Your task to perform on an android device: turn off priority inbox in the gmail app Image 0: 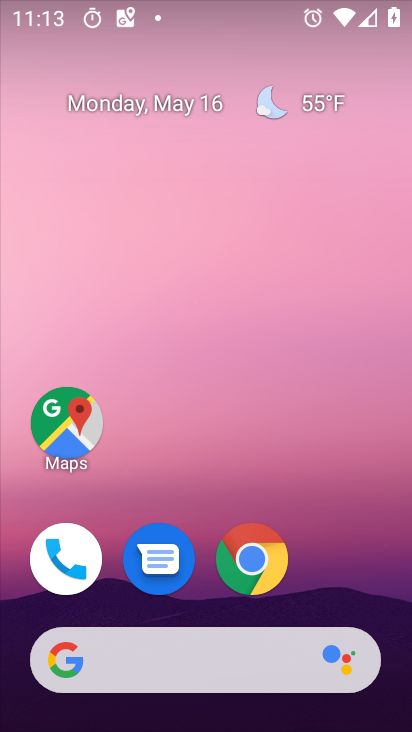
Step 0: drag from (335, 593) to (292, 132)
Your task to perform on an android device: turn off priority inbox in the gmail app Image 1: 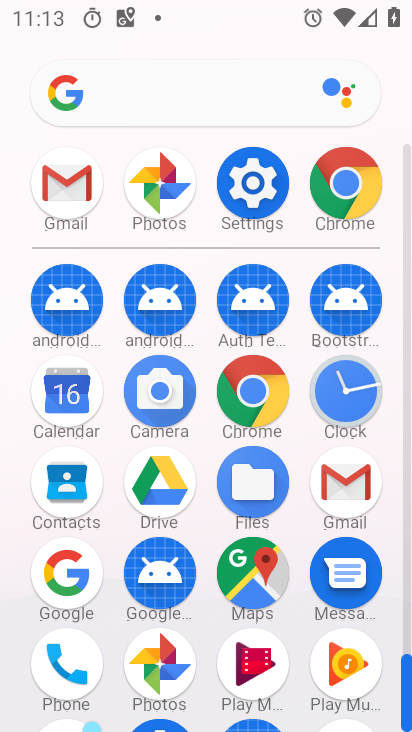
Step 1: click (88, 197)
Your task to perform on an android device: turn off priority inbox in the gmail app Image 2: 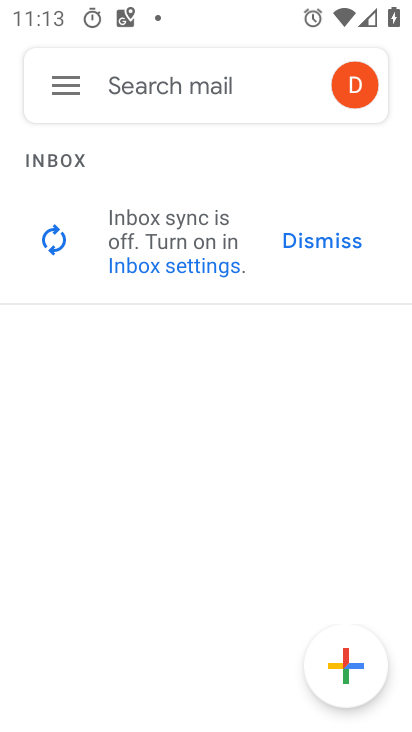
Step 2: click (66, 80)
Your task to perform on an android device: turn off priority inbox in the gmail app Image 3: 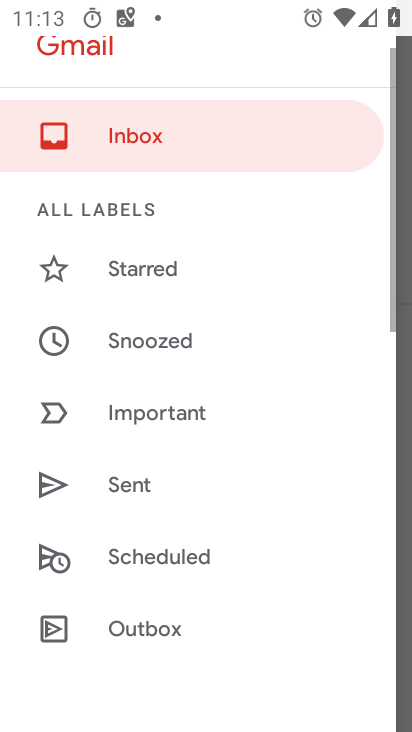
Step 3: drag from (228, 641) to (285, 216)
Your task to perform on an android device: turn off priority inbox in the gmail app Image 4: 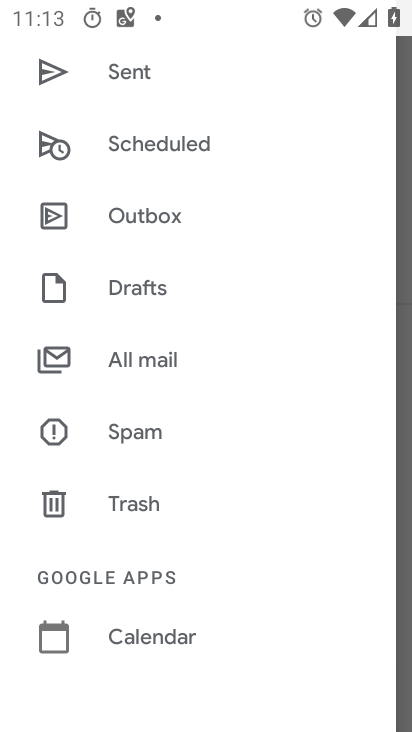
Step 4: drag from (167, 614) to (223, 194)
Your task to perform on an android device: turn off priority inbox in the gmail app Image 5: 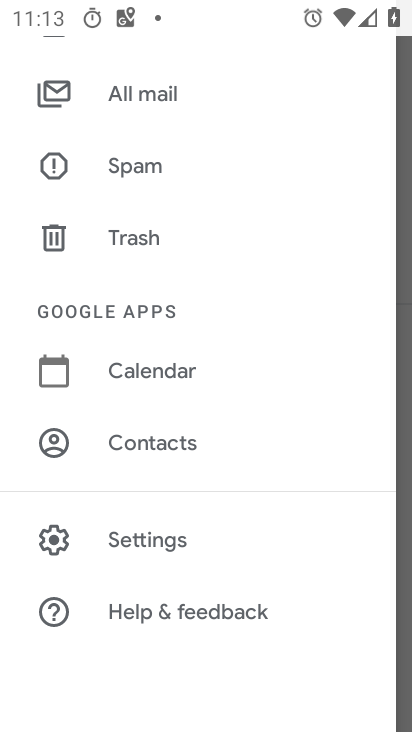
Step 5: click (143, 550)
Your task to perform on an android device: turn off priority inbox in the gmail app Image 6: 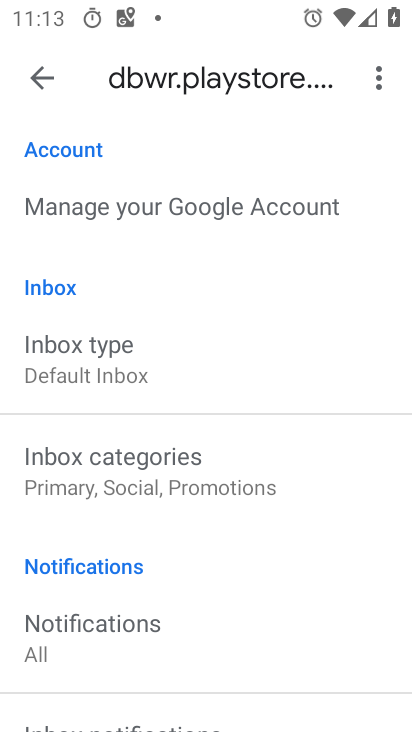
Step 6: click (130, 352)
Your task to perform on an android device: turn off priority inbox in the gmail app Image 7: 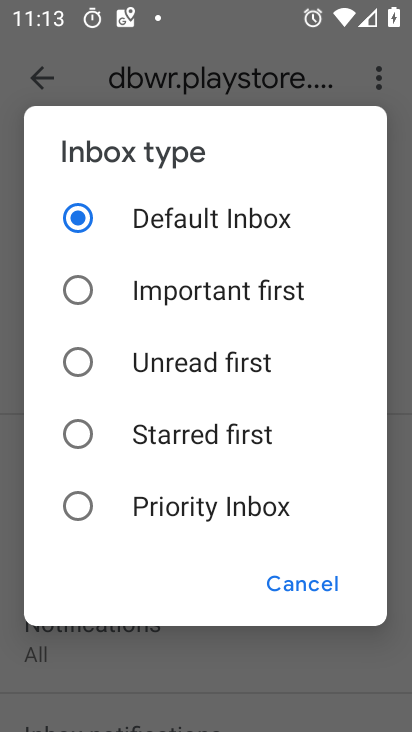
Step 7: task complete